Your task to perform on an android device: find which apps use the phone's location Image 0: 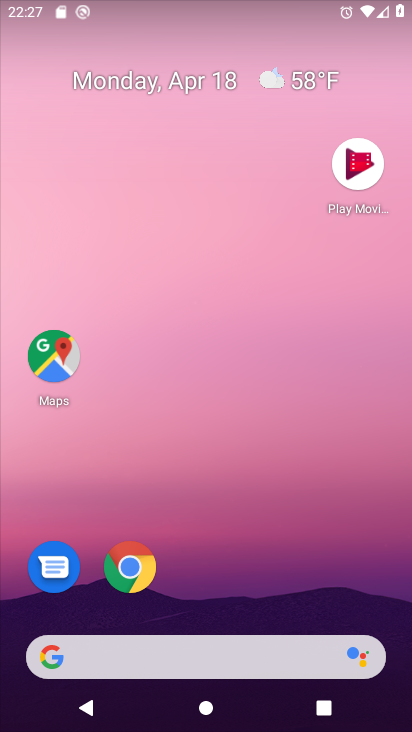
Step 0: drag from (193, 603) to (409, 134)
Your task to perform on an android device: find which apps use the phone's location Image 1: 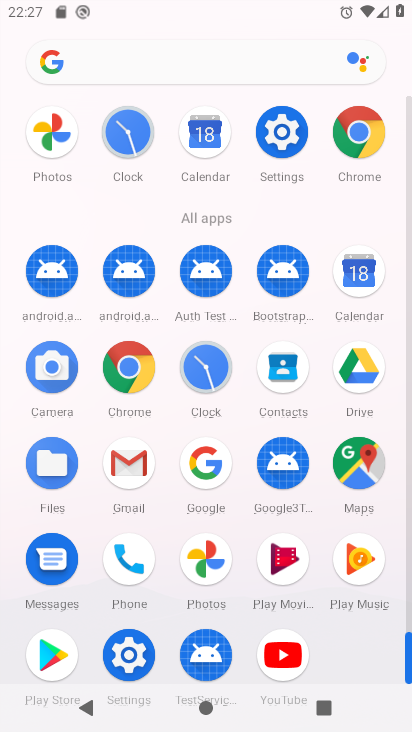
Step 1: click (269, 146)
Your task to perform on an android device: find which apps use the phone's location Image 2: 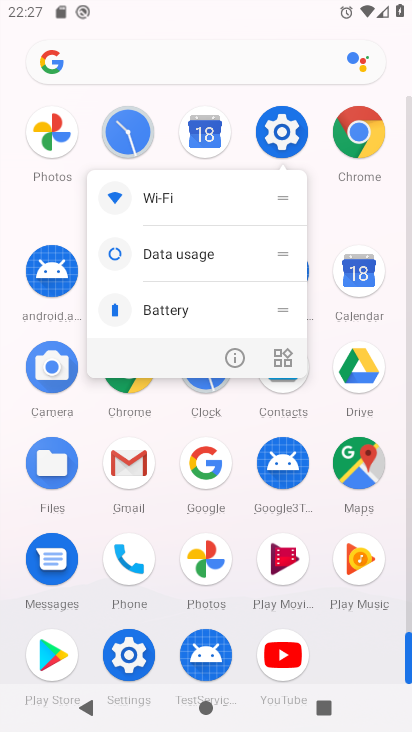
Step 2: click (229, 352)
Your task to perform on an android device: find which apps use the phone's location Image 3: 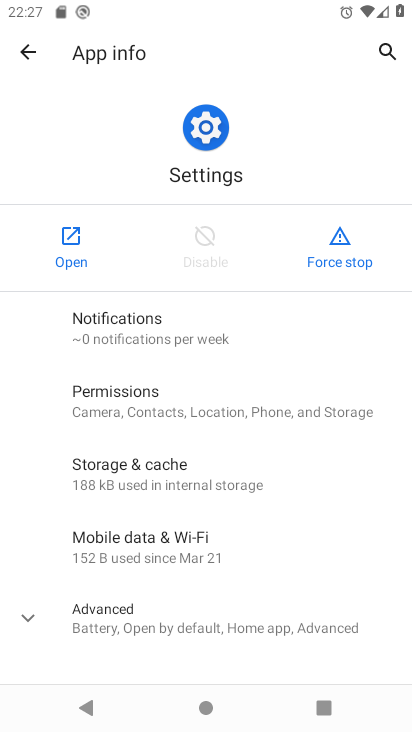
Step 3: click (80, 245)
Your task to perform on an android device: find which apps use the phone's location Image 4: 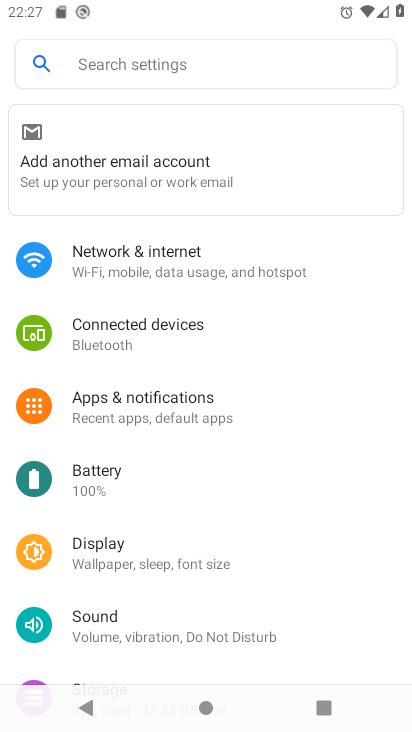
Step 4: drag from (204, 563) to (251, 155)
Your task to perform on an android device: find which apps use the phone's location Image 5: 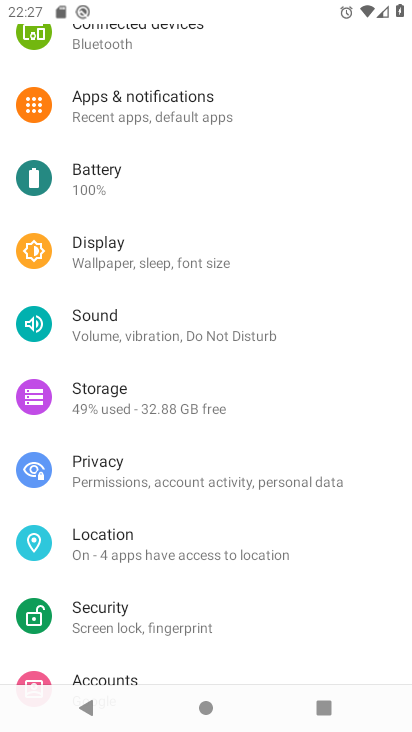
Step 5: click (133, 543)
Your task to perform on an android device: find which apps use the phone's location Image 6: 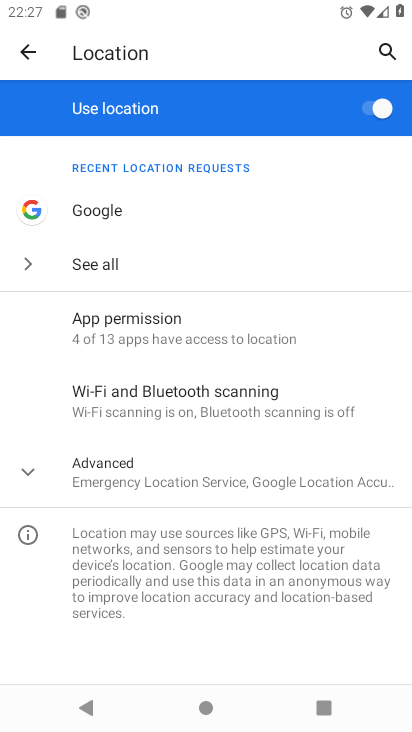
Step 6: click (158, 331)
Your task to perform on an android device: find which apps use the phone's location Image 7: 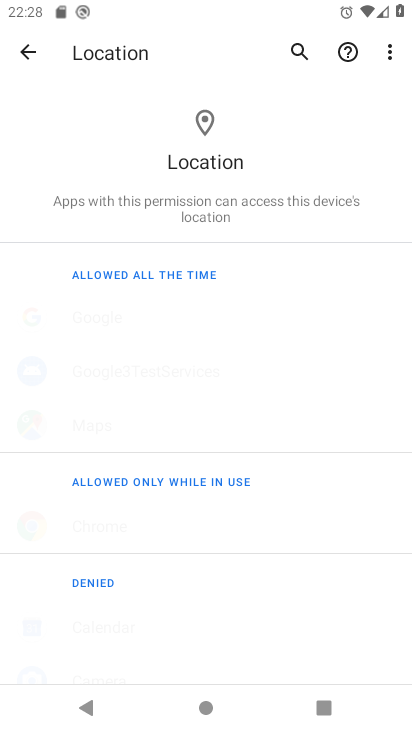
Step 7: task complete